Your task to perform on an android device: check out phone information Image 0: 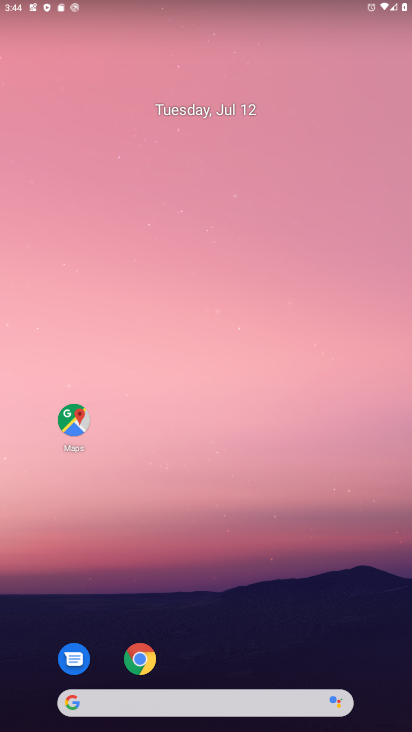
Step 0: click (139, 662)
Your task to perform on an android device: check out phone information Image 1: 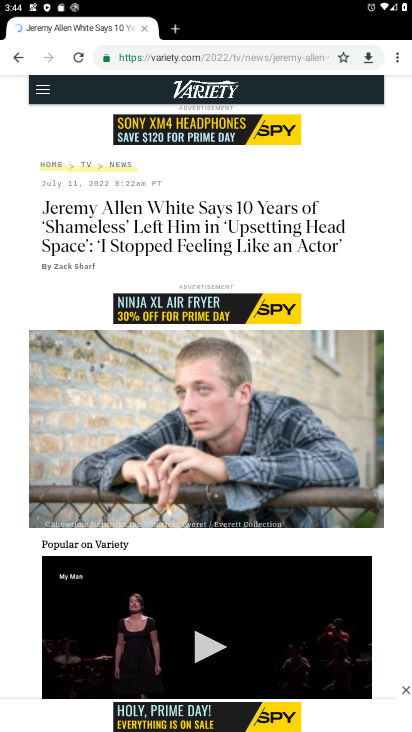
Step 1: press home button
Your task to perform on an android device: check out phone information Image 2: 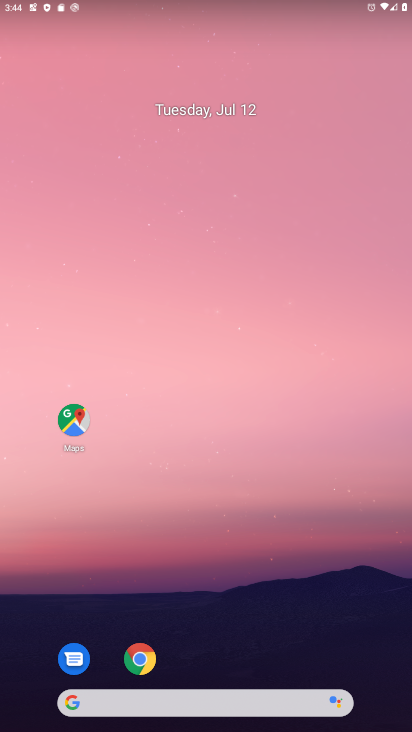
Step 2: drag from (202, 146) to (222, 28)
Your task to perform on an android device: check out phone information Image 3: 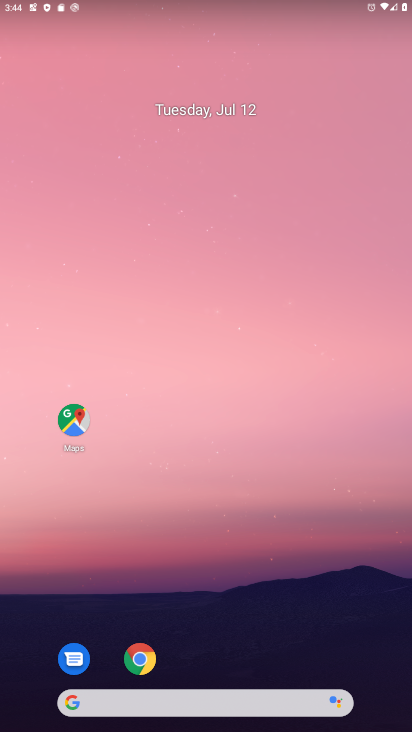
Step 3: drag from (182, 554) to (282, 1)
Your task to perform on an android device: check out phone information Image 4: 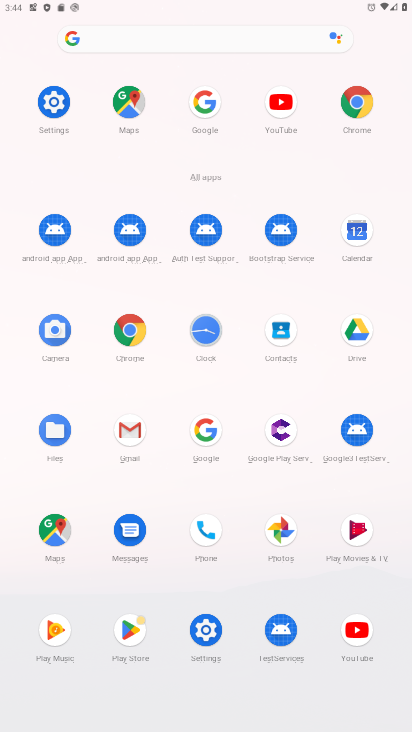
Step 4: click (49, 98)
Your task to perform on an android device: check out phone information Image 5: 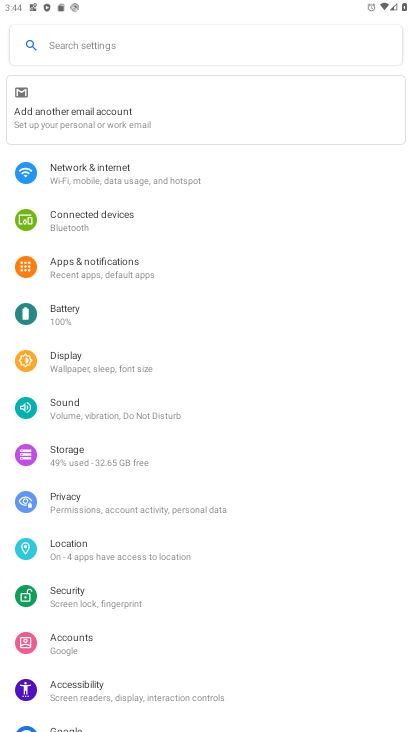
Step 5: drag from (120, 617) to (105, 275)
Your task to perform on an android device: check out phone information Image 6: 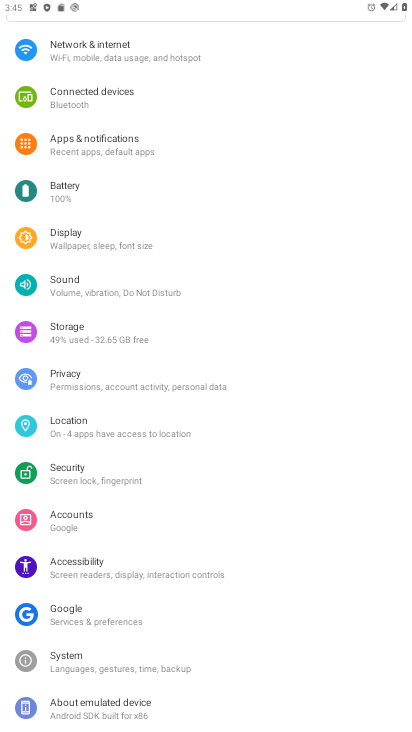
Step 6: click (64, 710)
Your task to perform on an android device: check out phone information Image 7: 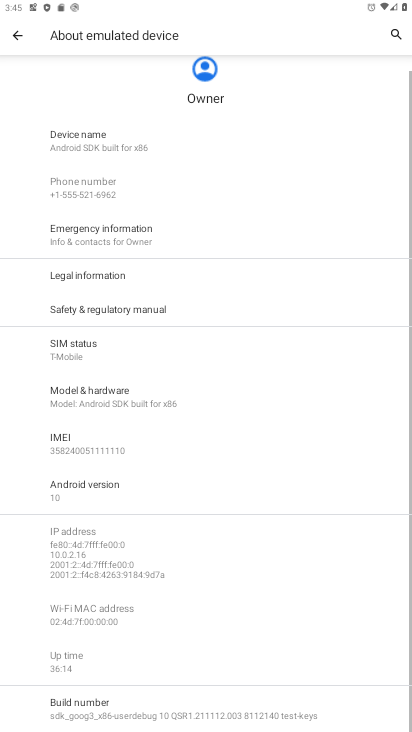
Step 7: task complete